Your task to perform on an android device: Open the web browser Image 0: 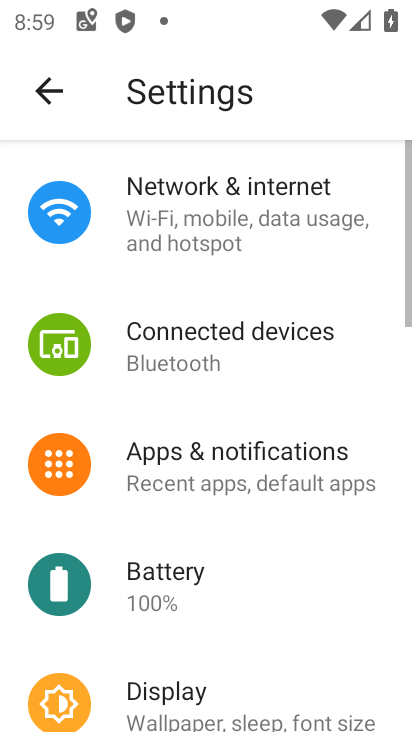
Step 0: press home button
Your task to perform on an android device: Open the web browser Image 1: 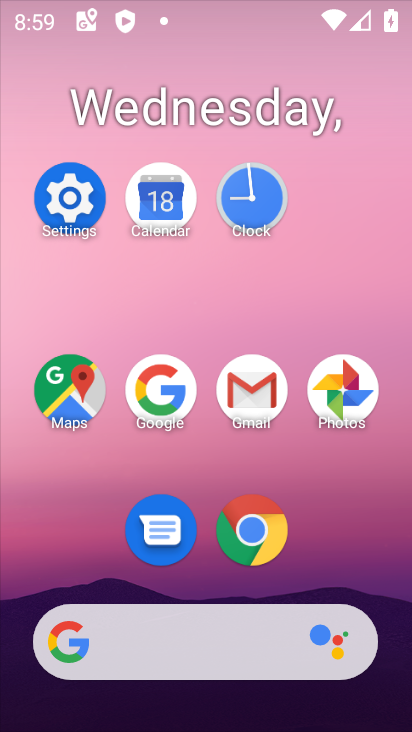
Step 1: click (252, 561)
Your task to perform on an android device: Open the web browser Image 2: 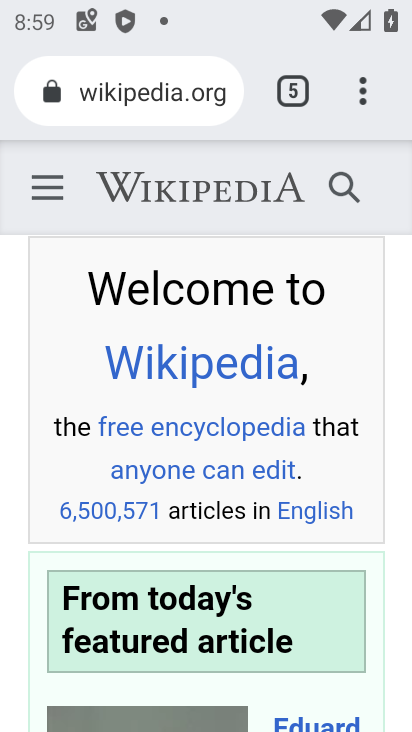
Step 2: task complete